Your task to perform on an android device: Show me the alarms in the clock app Image 0: 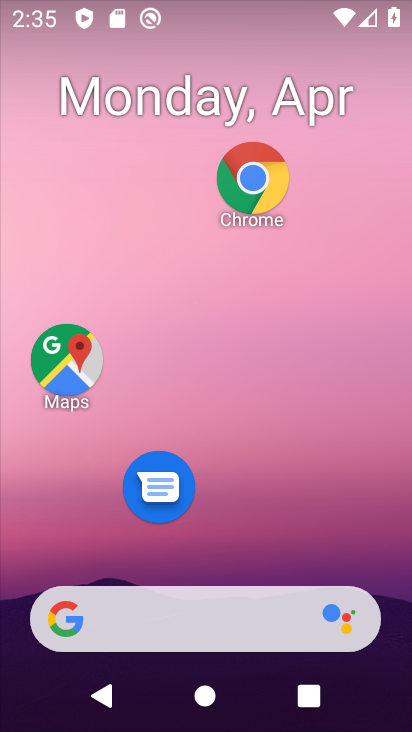
Step 0: drag from (243, 581) to (338, 105)
Your task to perform on an android device: Show me the alarms in the clock app Image 1: 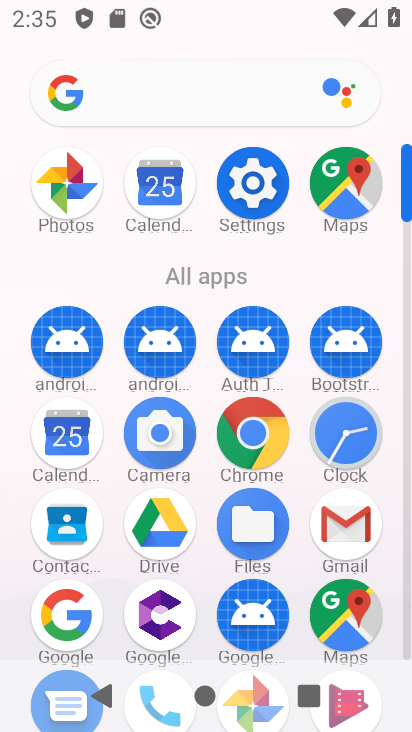
Step 1: click (347, 422)
Your task to perform on an android device: Show me the alarms in the clock app Image 2: 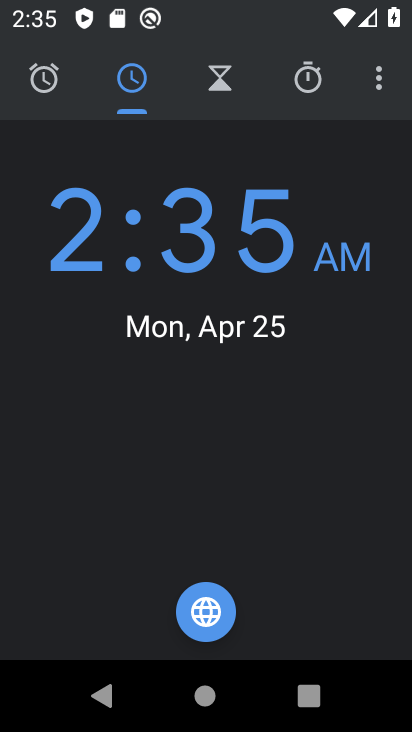
Step 2: click (49, 78)
Your task to perform on an android device: Show me the alarms in the clock app Image 3: 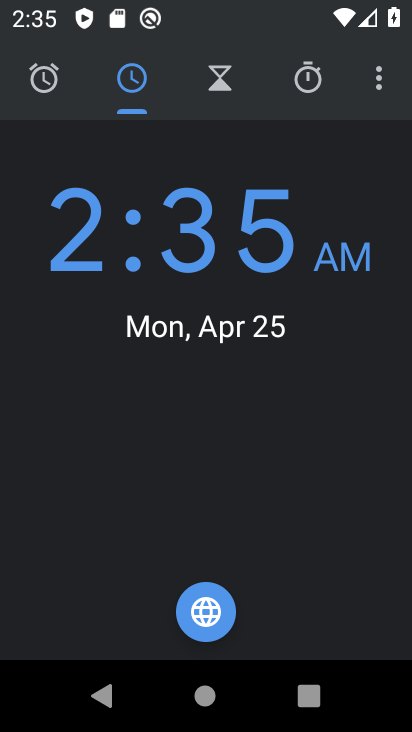
Step 3: click (49, 78)
Your task to perform on an android device: Show me the alarms in the clock app Image 4: 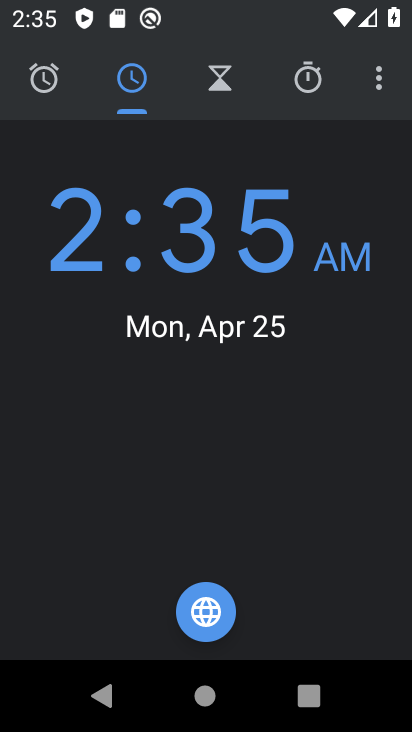
Step 4: task complete